Your task to perform on an android device: Toggle the flashlight Image 0: 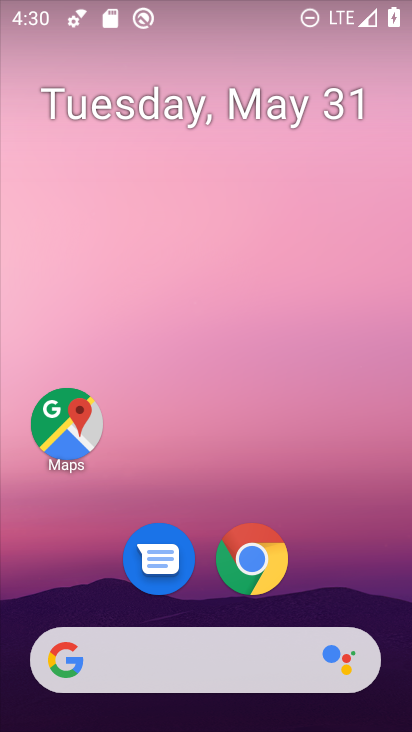
Step 0: drag from (213, 712) to (243, 121)
Your task to perform on an android device: Toggle the flashlight Image 1: 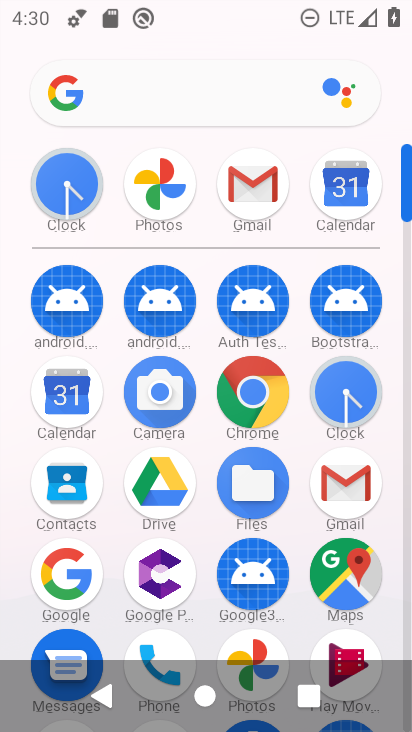
Step 1: drag from (201, 627) to (205, 283)
Your task to perform on an android device: Toggle the flashlight Image 2: 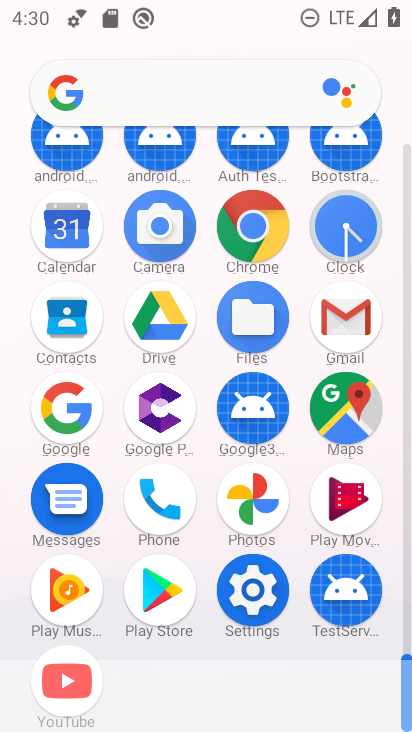
Step 2: click (250, 598)
Your task to perform on an android device: Toggle the flashlight Image 3: 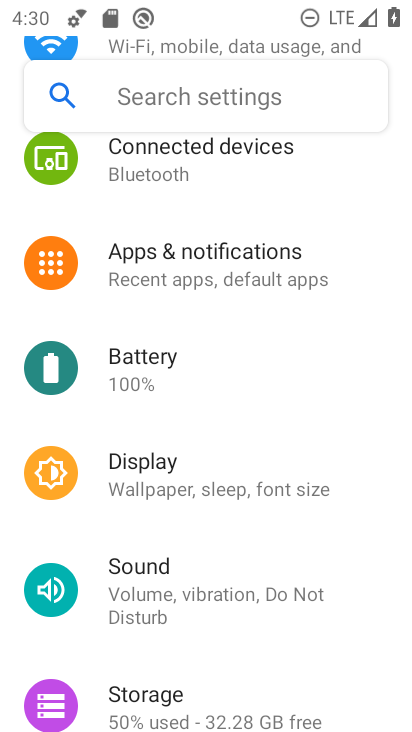
Step 3: task complete